Your task to perform on an android device: turn off location Image 0: 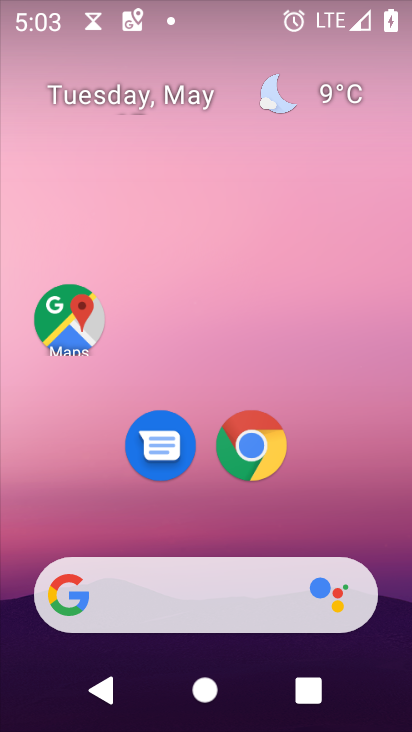
Step 0: drag from (214, 550) to (379, 20)
Your task to perform on an android device: turn off location Image 1: 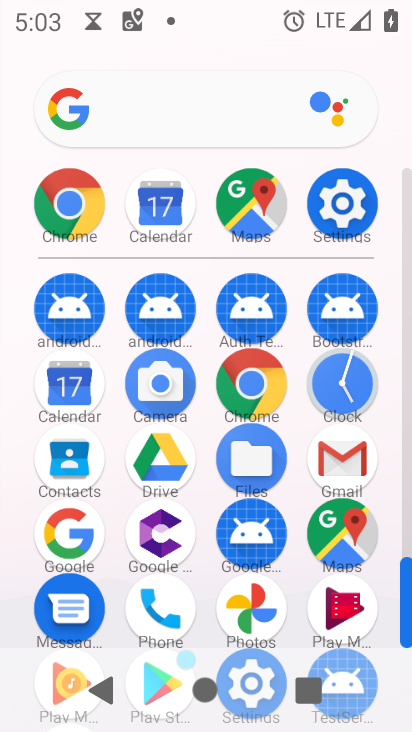
Step 1: click (339, 202)
Your task to perform on an android device: turn off location Image 2: 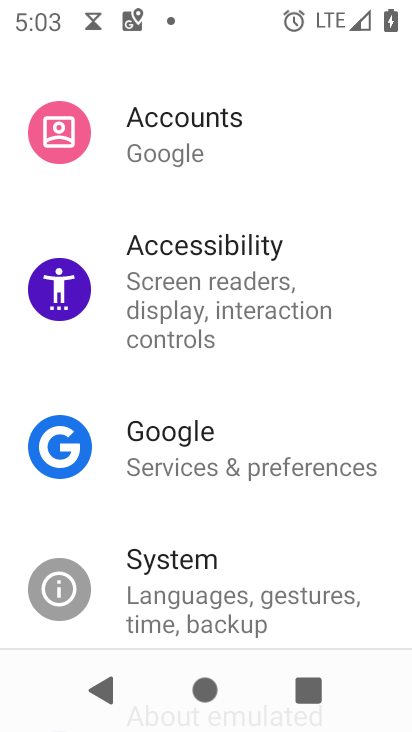
Step 2: drag from (235, 507) to (239, 598)
Your task to perform on an android device: turn off location Image 3: 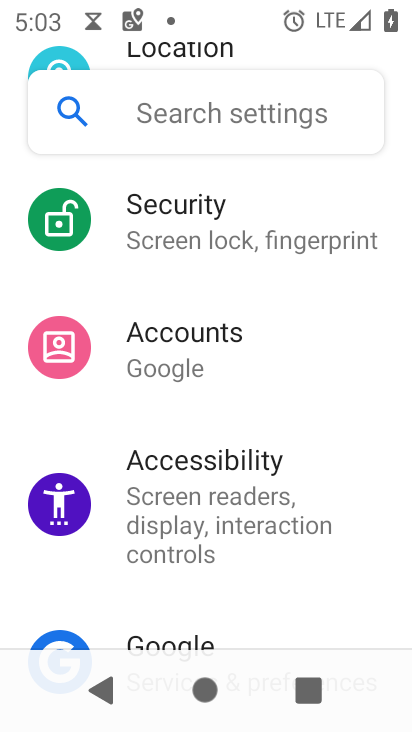
Step 3: drag from (291, 238) to (351, 717)
Your task to perform on an android device: turn off location Image 4: 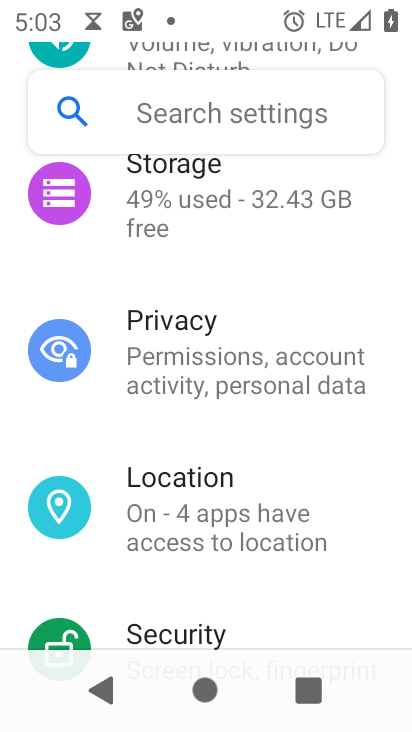
Step 4: click (216, 501)
Your task to perform on an android device: turn off location Image 5: 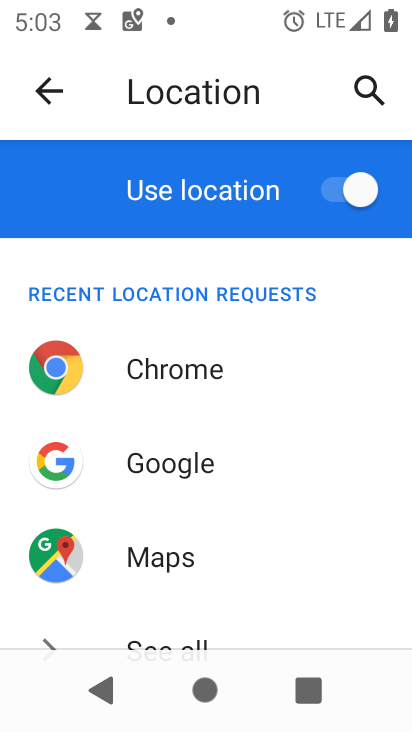
Step 5: click (341, 189)
Your task to perform on an android device: turn off location Image 6: 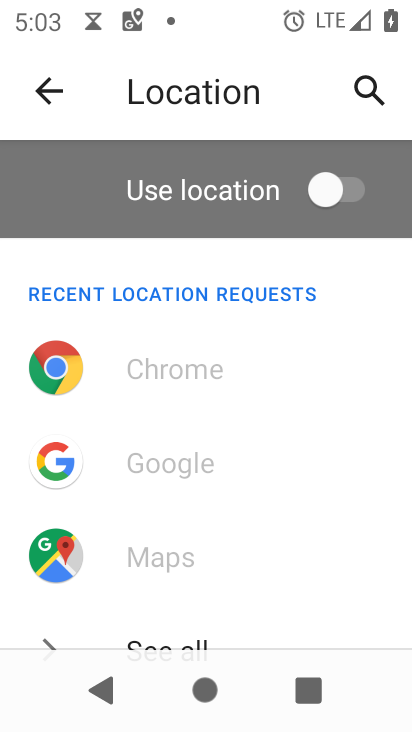
Step 6: task complete